Your task to perform on an android device: allow notifications from all sites in the chrome app Image 0: 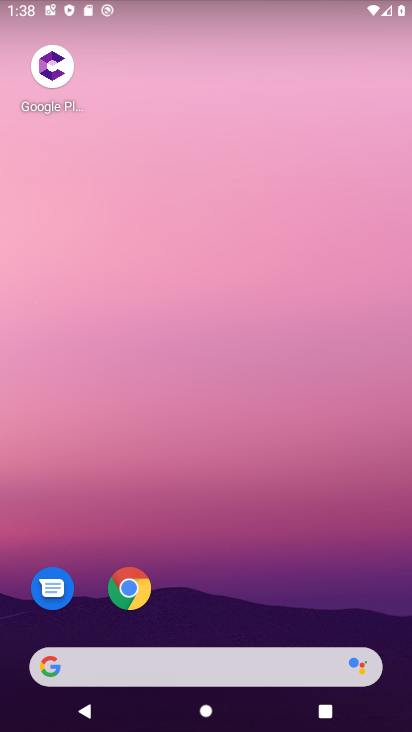
Step 0: click (124, 594)
Your task to perform on an android device: allow notifications from all sites in the chrome app Image 1: 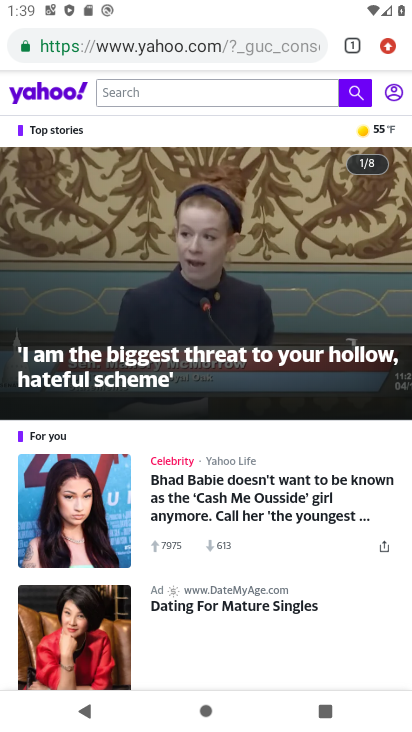
Step 1: click (389, 42)
Your task to perform on an android device: allow notifications from all sites in the chrome app Image 2: 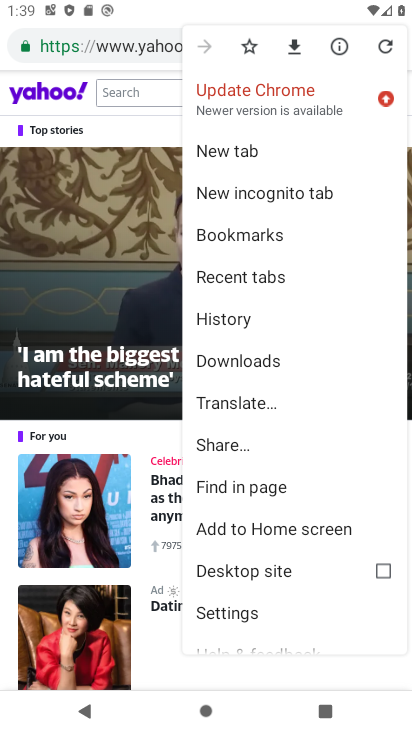
Step 2: drag from (260, 462) to (308, 278)
Your task to perform on an android device: allow notifications from all sites in the chrome app Image 3: 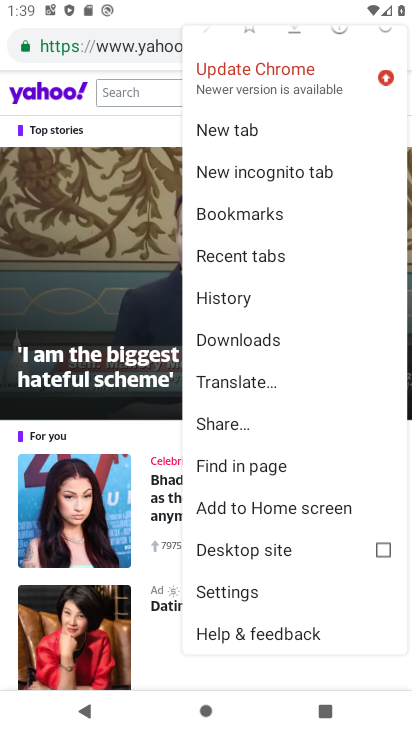
Step 3: click (276, 595)
Your task to perform on an android device: allow notifications from all sites in the chrome app Image 4: 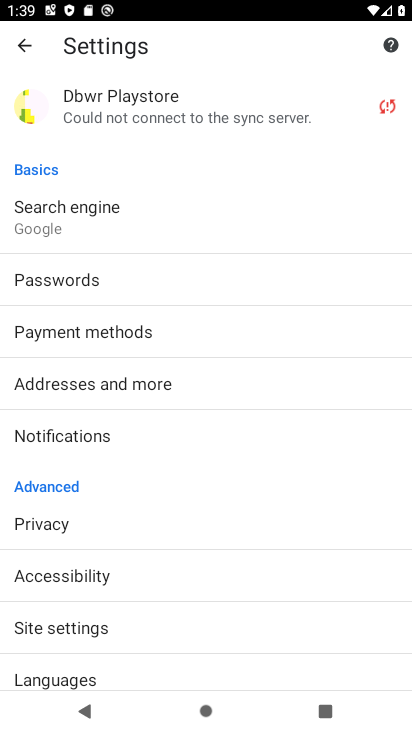
Step 4: click (135, 434)
Your task to perform on an android device: allow notifications from all sites in the chrome app Image 5: 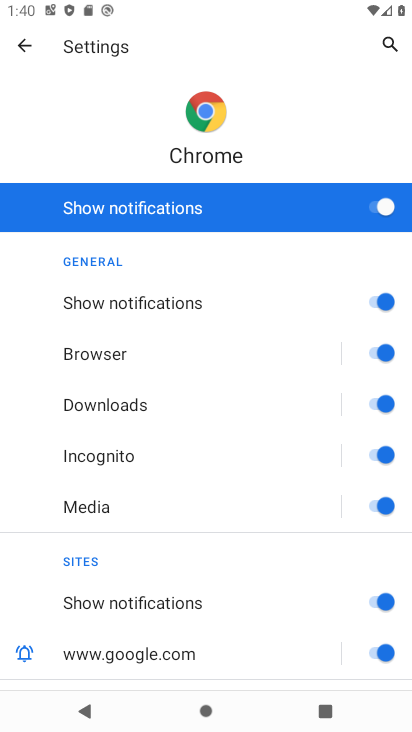
Step 5: task complete